Your task to perform on an android device: uninstall "DoorDash - Dasher" Image 0: 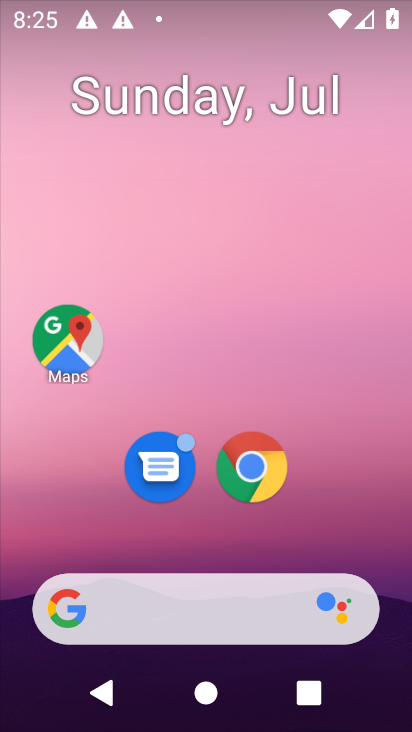
Step 0: drag from (203, 433) to (255, 146)
Your task to perform on an android device: uninstall "DoorDash - Dasher" Image 1: 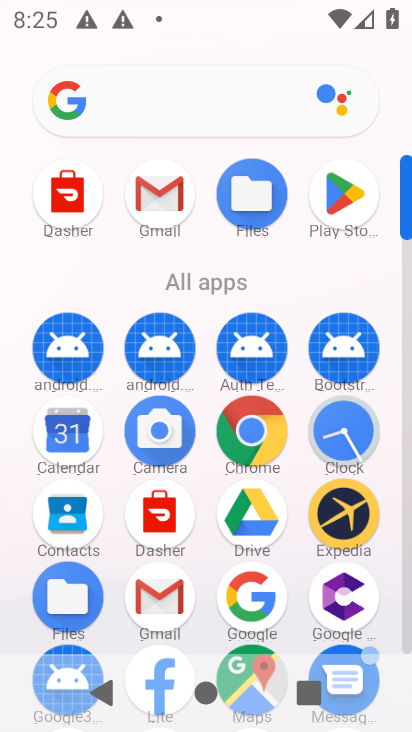
Step 1: click (340, 196)
Your task to perform on an android device: uninstall "DoorDash - Dasher" Image 2: 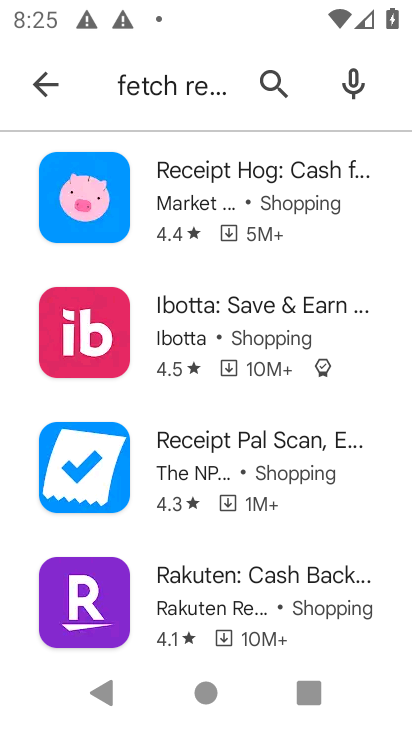
Step 2: click (277, 89)
Your task to perform on an android device: uninstall "DoorDash - Dasher" Image 3: 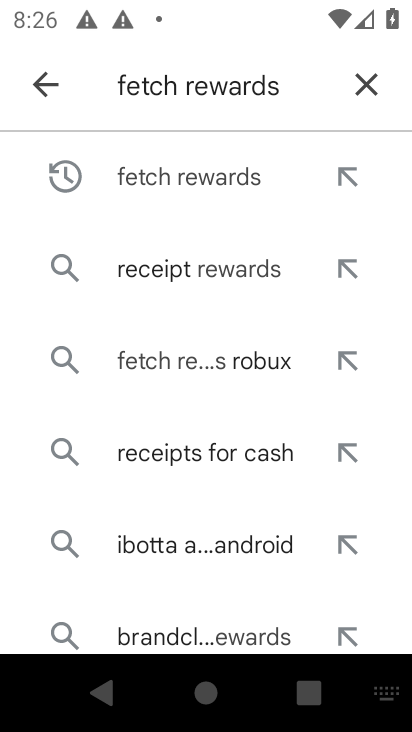
Step 3: click (338, 86)
Your task to perform on an android device: uninstall "DoorDash - Dasher" Image 4: 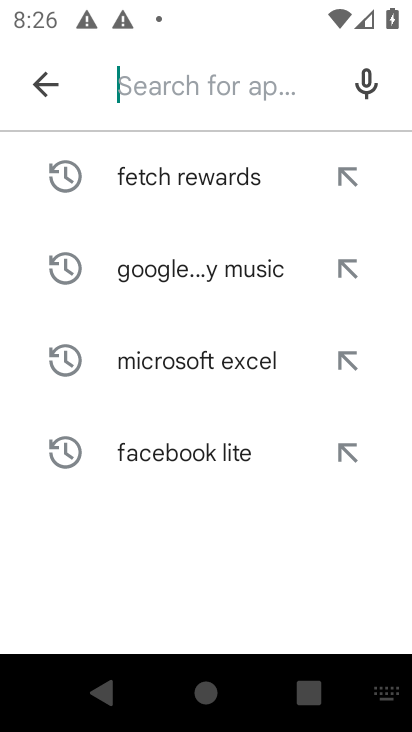
Step 4: type ""
Your task to perform on an android device: uninstall "DoorDash - Dasher" Image 5: 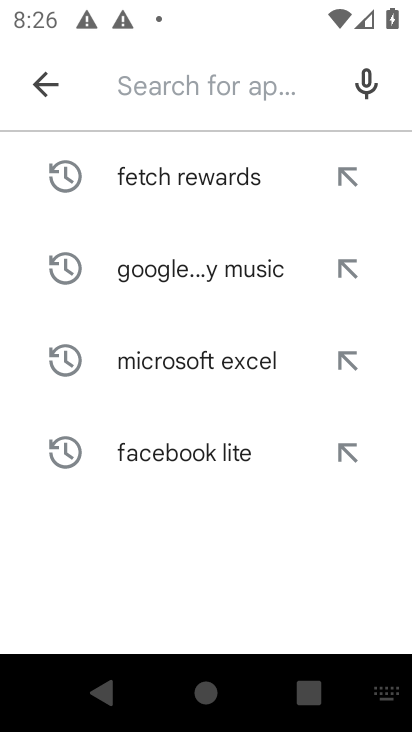
Step 5: type "DoorDash - Dasher"
Your task to perform on an android device: uninstall "DoorDash - Dasher" Image 6: 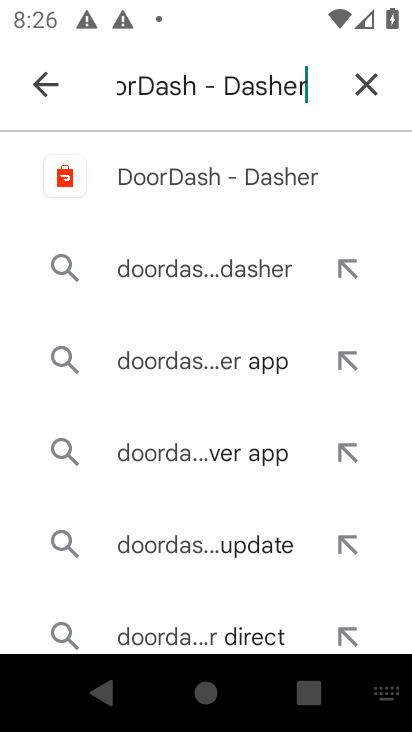
Step 6: click (177, 165)
Your task to perform on an android device: uninstall "DoorDash - Dasher" Image 7: 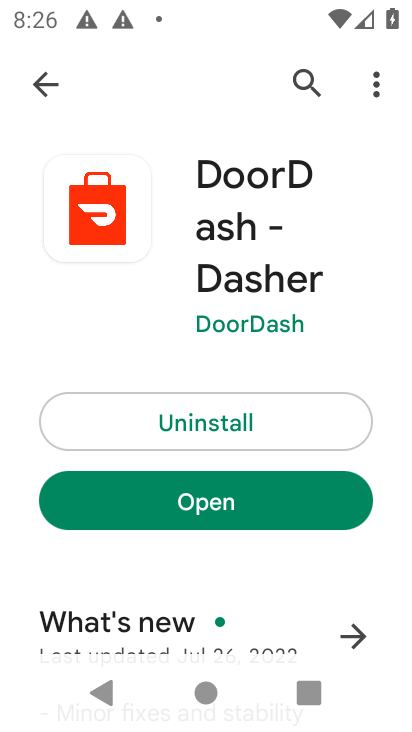
Step 7: click (224, 420)
Your task to perform on an android device: uninstall "DoorDash - Dasher" Image 8: 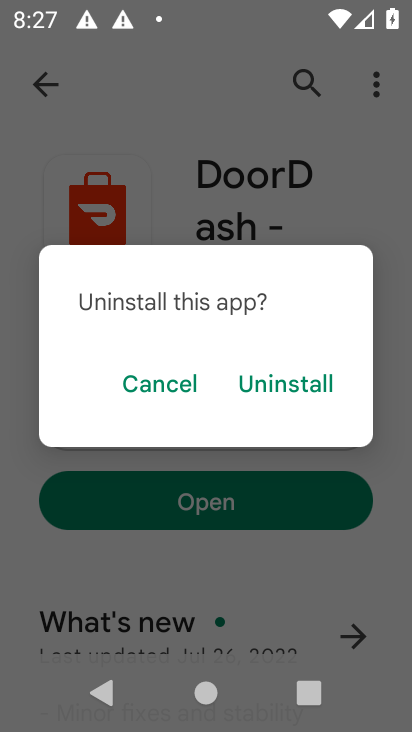
Step 8: click (300, 390)
Your task to perform on an android device: uninstall "DoorDash - Dasher" Image 9: 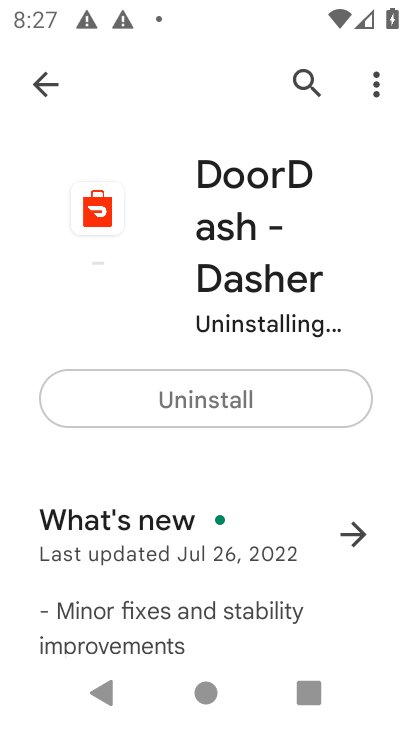
Step 9: task complete